Your task to perform on an android device: Search for pizza restaurants on Maps Image 0: 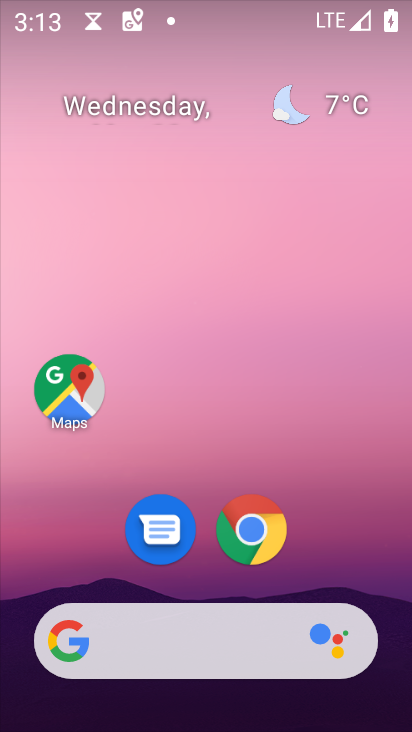
Step 0: drag from (350, 532) to (373, 124)
Your task to perform on an android device: Search for pizza restaurants on Maps Image 1: 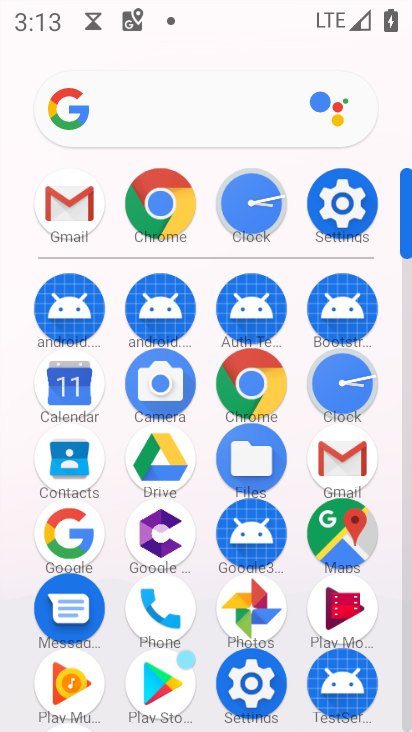
Step 1: click (346, 547)
Your task to perform on an android device: Search for pizza restaurants on Maps Image 2: 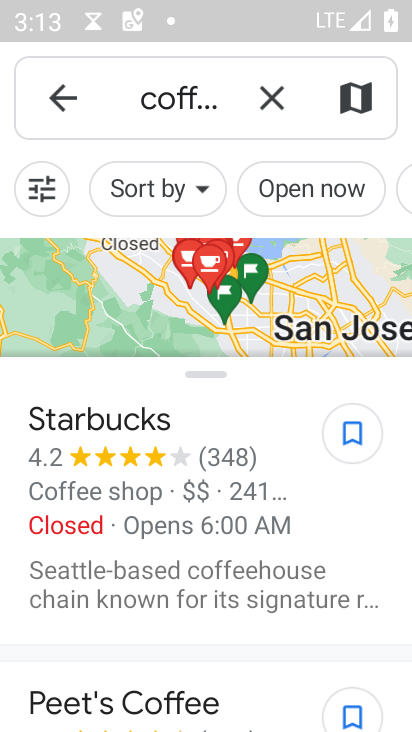
Step 2: click (272, 87)
Your task to perform on an android device: Search for pizza restaurants on Maps Image 3: 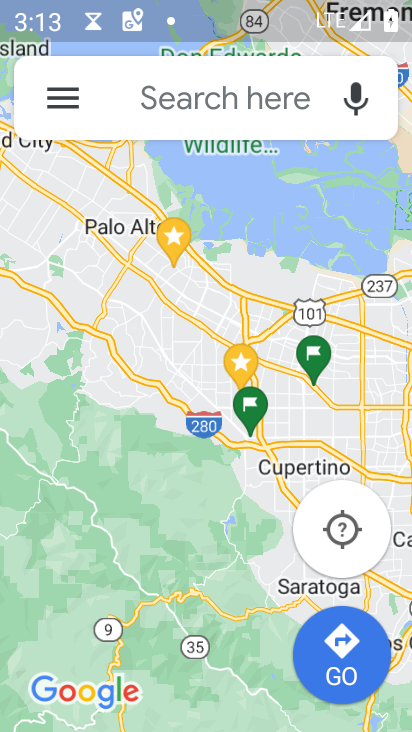
Step 3: click (257, 77)
Your task to perform on an android device: Search for pizza restaurants on Maps Image 4: 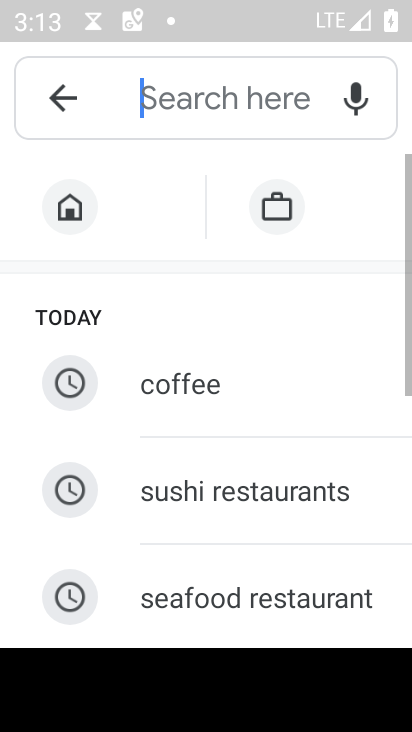
Step 4: drag from (302, 578) to (255, 248)
Your task to perform on an android device: Search for pizza restaurants on Maps Image 5: 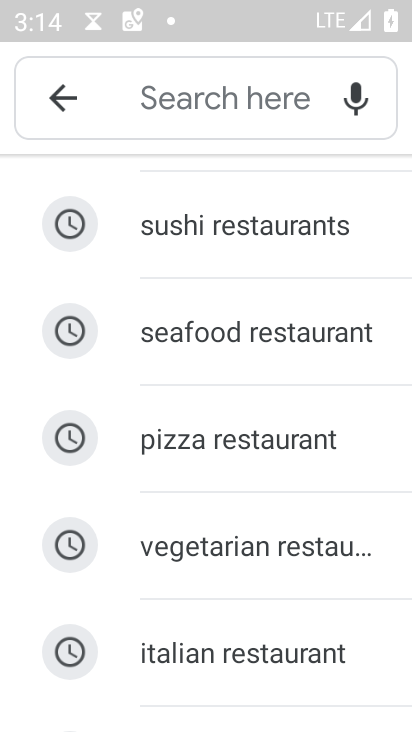
Step 5: click (247, 440)
Your task to perform on an android device: Search for pizza restaurants on Maps Image 6: 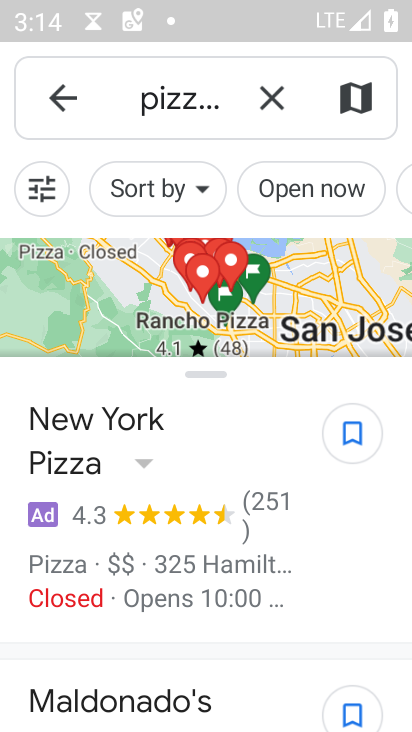
Step 6: task complete